Your task to perform on an android device: clear history in the chrome app Image 0: 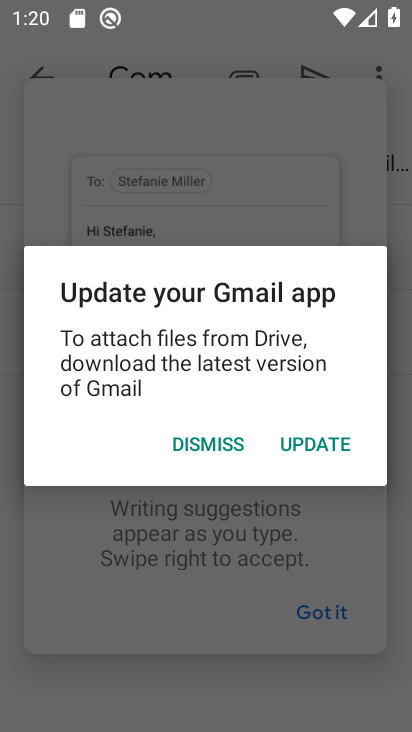
Step 0: press home button
Your task to perform on an android device: clear history in the chrome app Image 1: 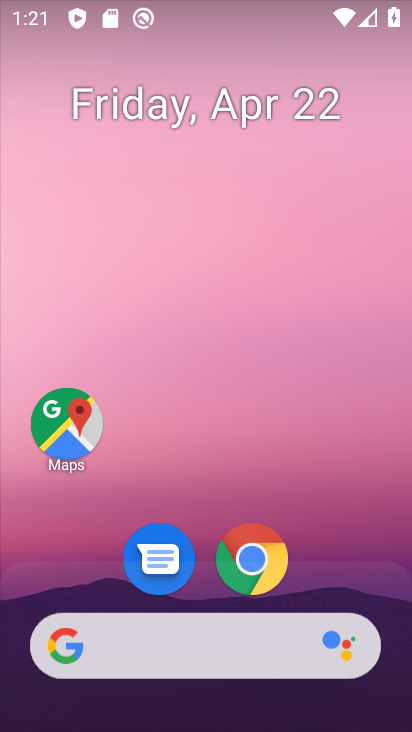
Step 1: click (256, 562)
Your task to perform on an android device: clear history in the chrome app Image 2: 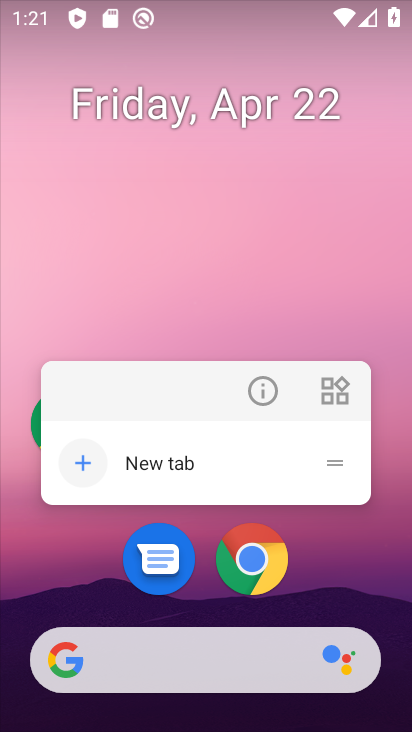
Step 2: click (256, 562)
Your task to perform on an android device: clear history in the chrome app Image 3: 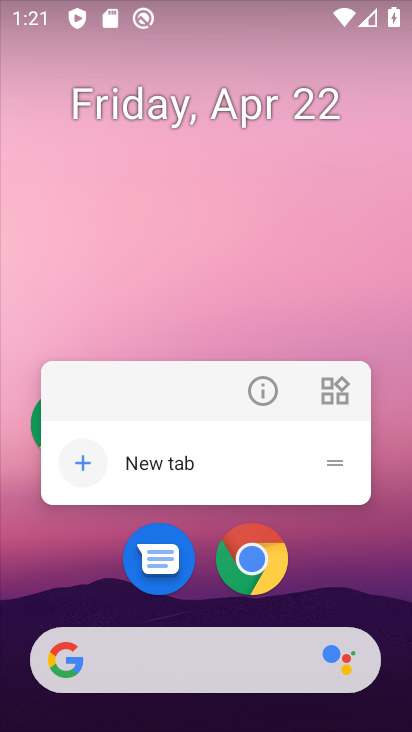
Step 3: click (244, 554)
Your task to perform on an android device: clear history in the chrome app Image 4: 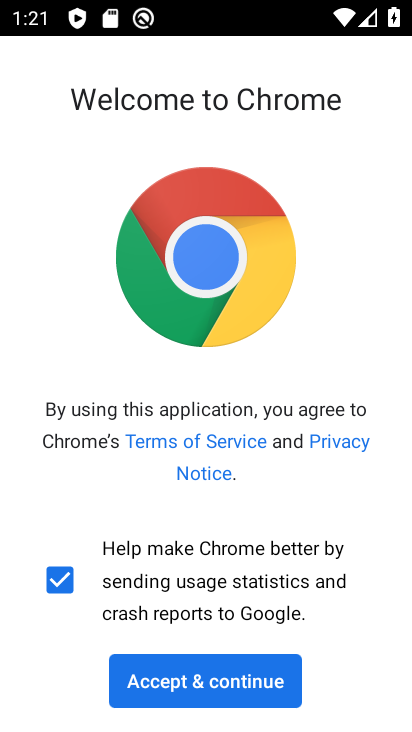
Step 4: click (258, 678)
Your task to perform on an android device: clear history in the chrome app Image 5: 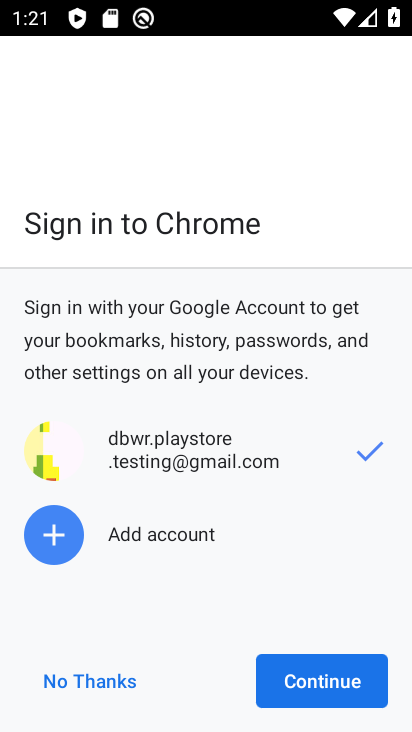
Step 5: click (335, 684)
Your task to perform on an android device: clear history in the chrome app Image 6: 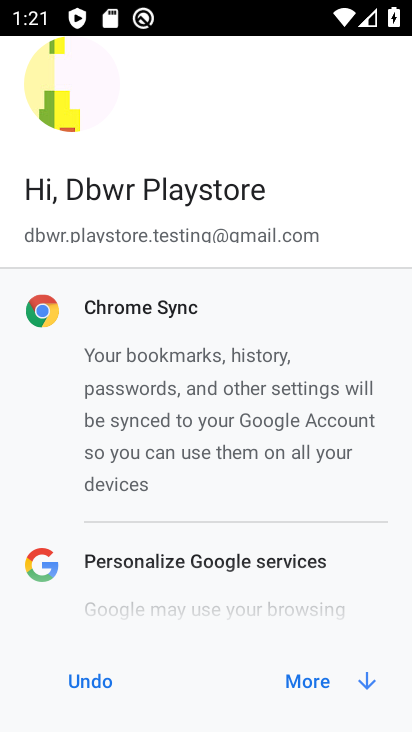
Step 6: click (335, 684)
Your task to perform on an android device: clear history in the chrome app Image 7: 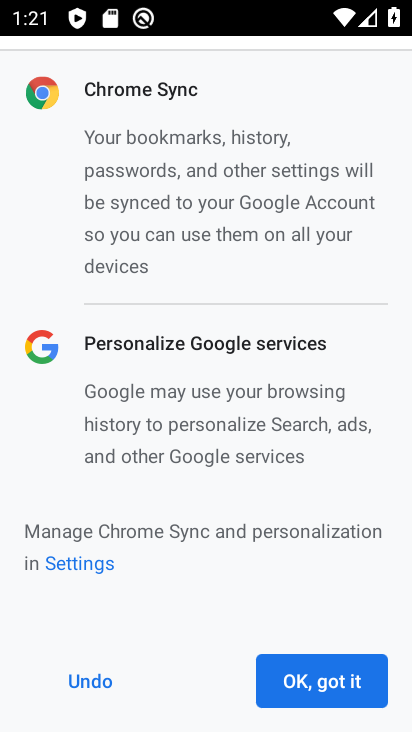
Step 7: click (335, 684)
Your task to perform on an android device: clear history in the chrome app Image 8: 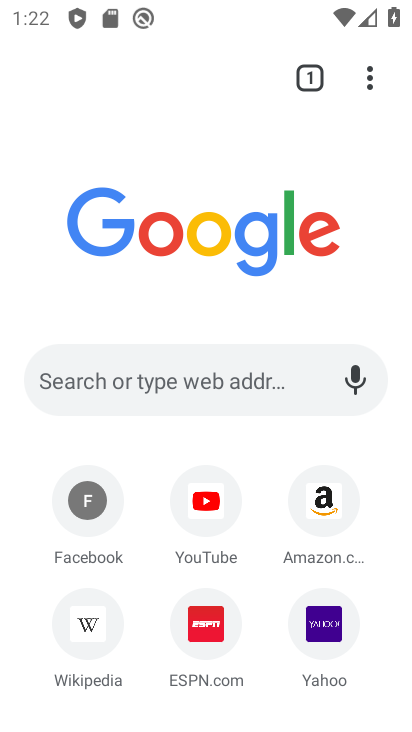
Step 8: task complete